Your task to perform on an android device: Open Maps and search for coffee Image 0: 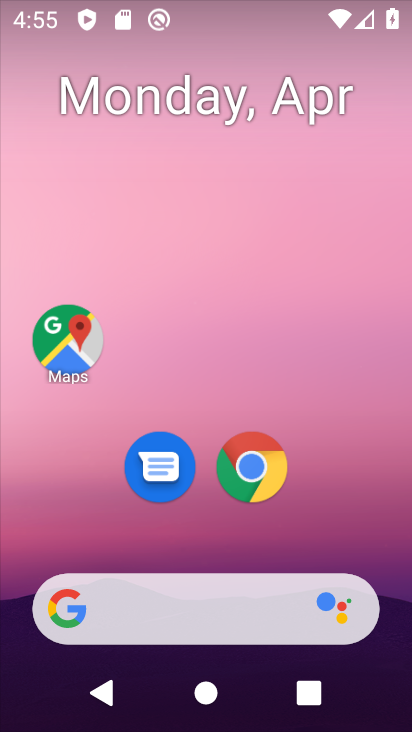
Step 0: drag from (288, 569) to (353, 59)
Your task to perform on an android device: Open Maps and search for coffee Image 1: 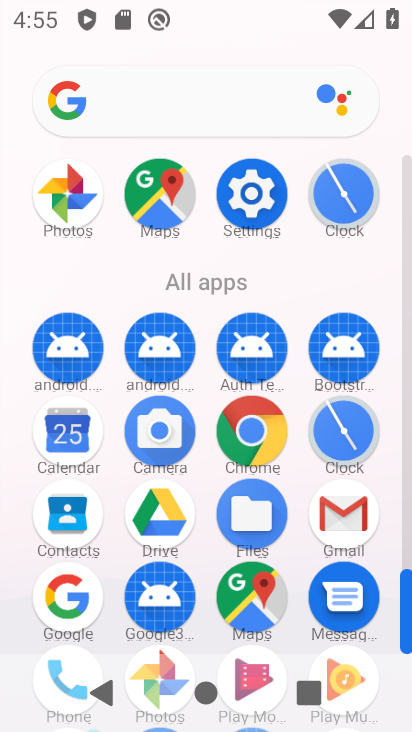
Step 1: click (235, 600)
Your task to perform on an android device: Open Maps and search for coffee Image 2: 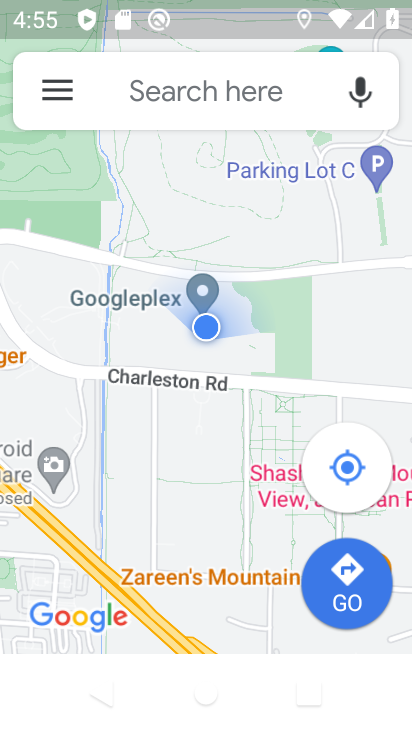
Step 2: click (170, 94)
Your task to perform on an android device: Open Maps and search for coffee Image 3: 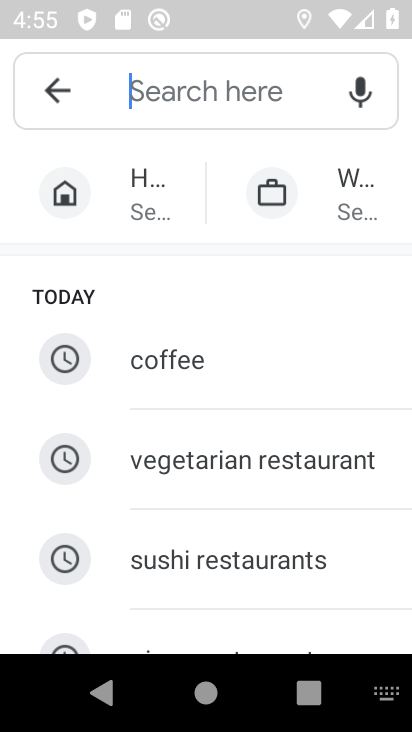
Step 3: type "coffee"
Your task to perform on an android device: Open Maps and search for coffee Image 4: 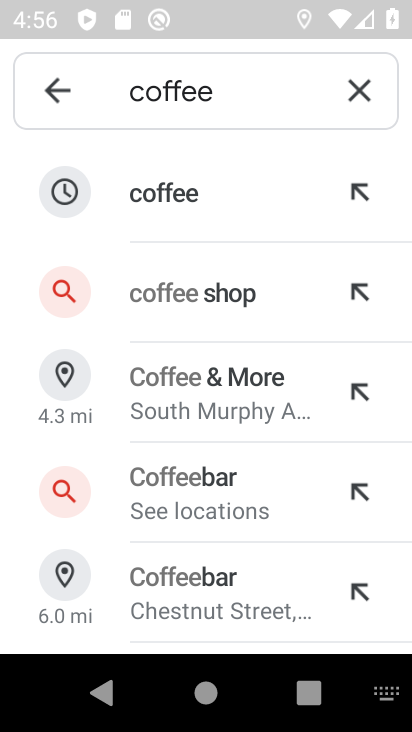
Step 4: click (225, 220)
Your task to perform on an android device: Open Maps and search for coffee Image 5: 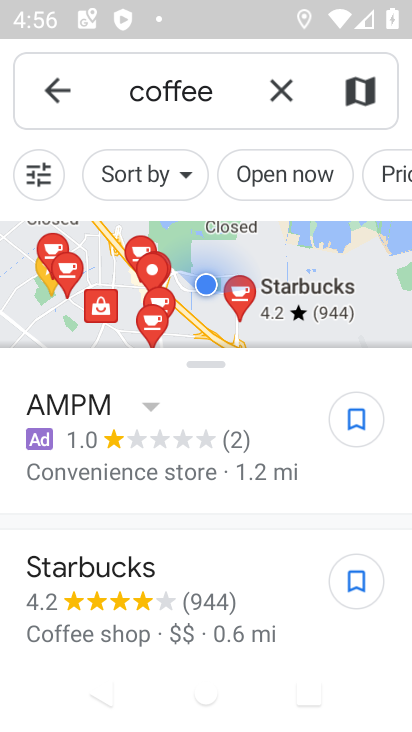
Step 5: task complete